Your task to perform on an android device: turn off wifi Image 0: 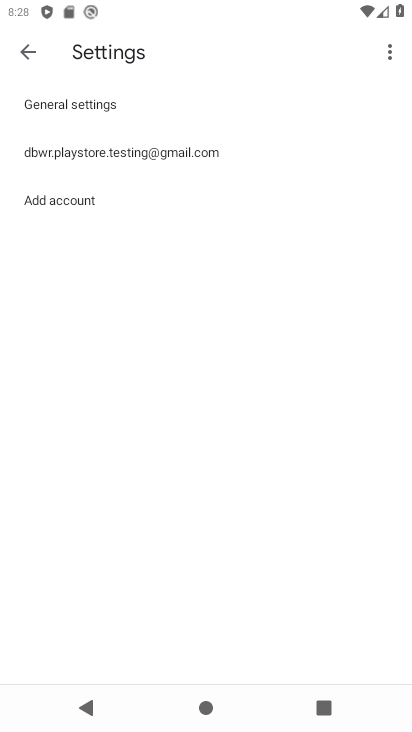
Step 0: press home button
Your task to perform on an android device: turn off wifi Image 1: 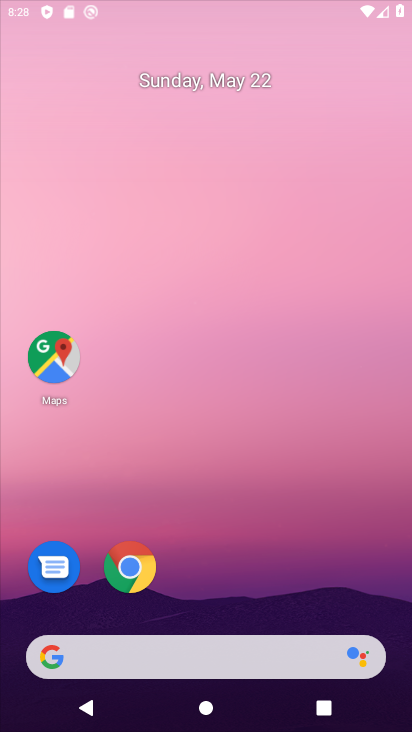
Step 1: drag from (332, 583) to (204, 70)
Your task to perform on an android device: turn off wifi Image 2: 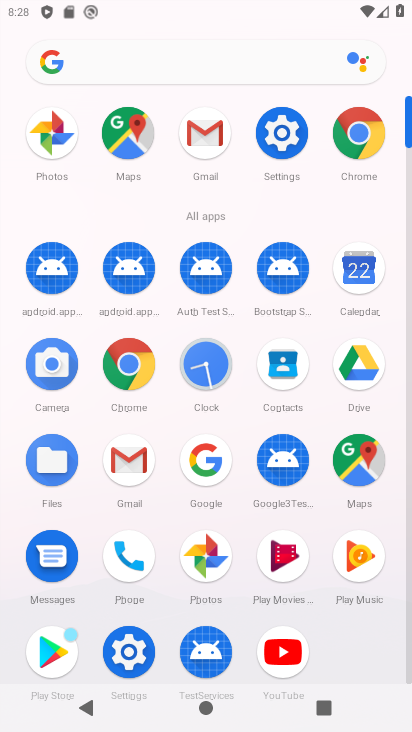
Step 2: click (268, 139)
Your task to perform on an android device: turn off wifi Image 3: 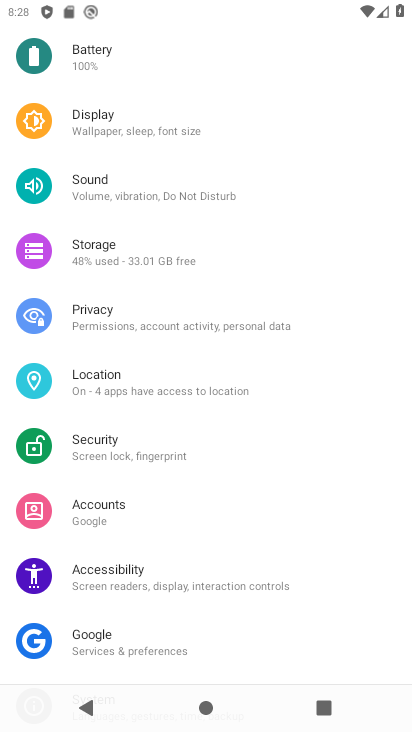
Step 3: drag from (174, 94) to (203, 634)
Your task to perform on an android device: turn off wifi Image 4: 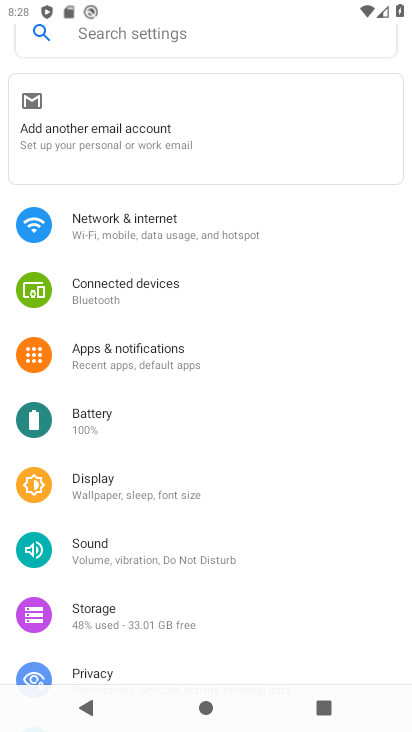
Step 4: click (157, 221)
Your task to perform on an android device: turn off wifi Image 5: 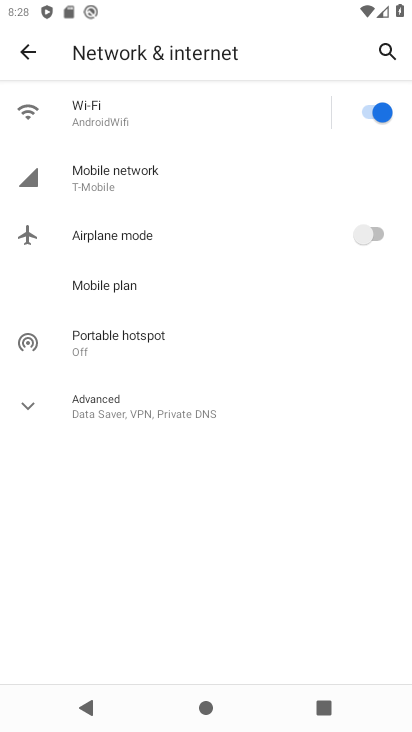
Step 5: click (196, 100)
Your task to perform on an android device: turn off wifi Image 6: 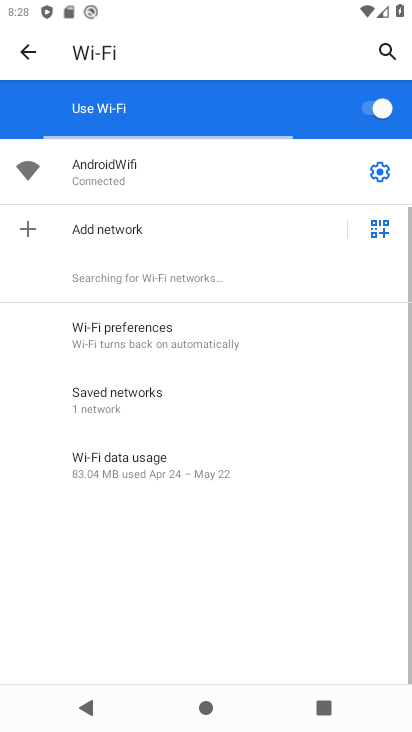
Step 6: click (372, 98)
Your task to perform on an android device: turn off wifi Image 7: 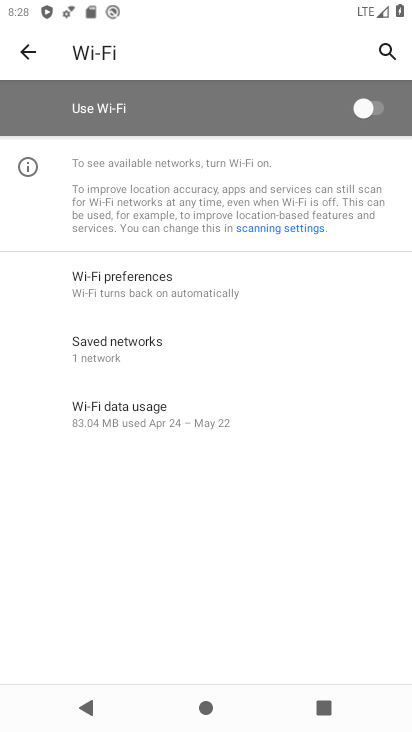
Step 7: task complete